Your task to perform on an android device: Open the map Image 0: 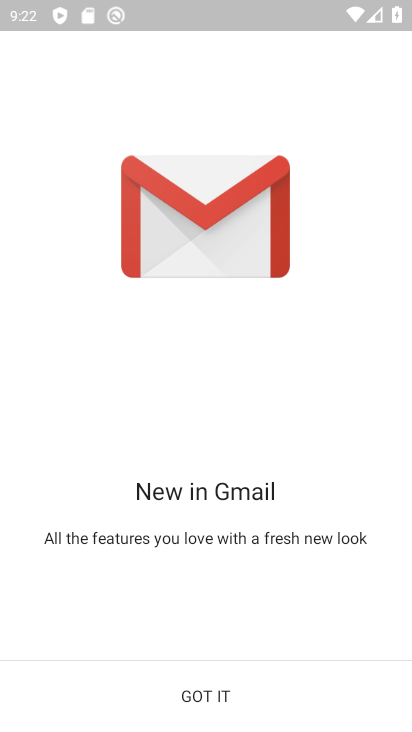
Step 0: press home button
Your task to perform on an android device: Open the map Image 1: 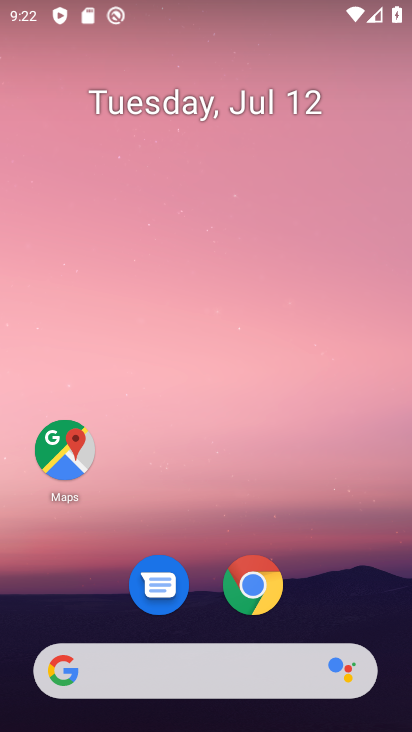
Step 1: click (59, 454)
Your task to perform on an android device: Open the map Image 2: 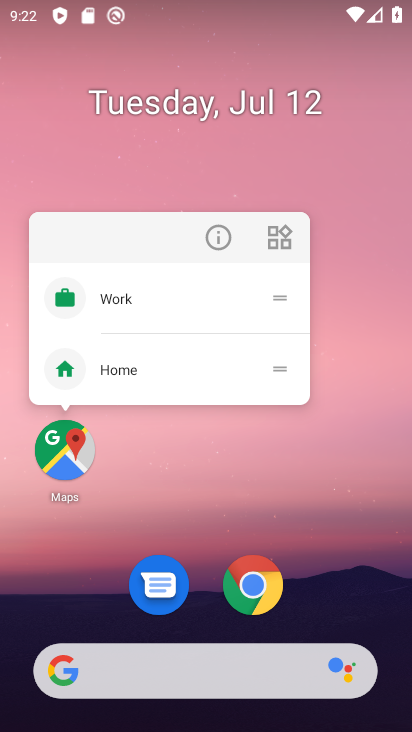
Step 2: click (69, 449)
Your task to perform on an android device: Open the map Image 3: 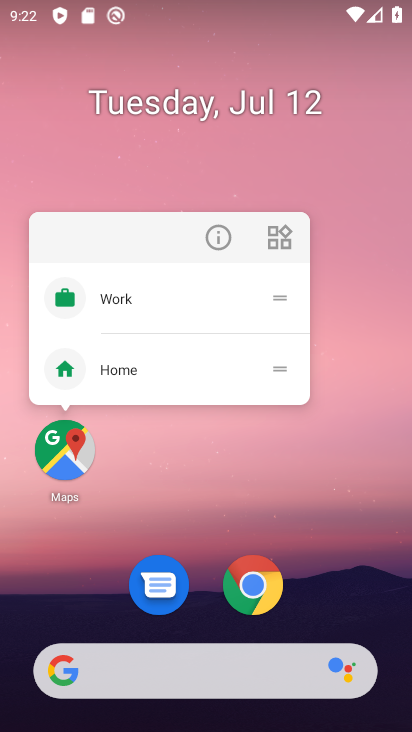
Step 3: click (57, 460)
Your task to perform on an android device: Open the map Image 4: 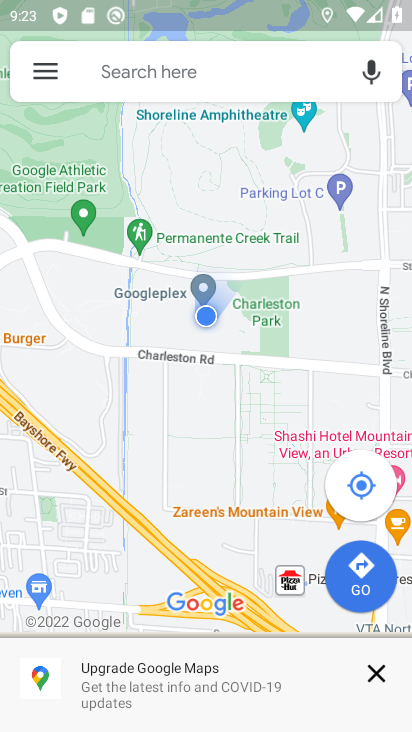
Step 4: task complete